Your task to perform on an android device: turn smart compose on in the gmail app Image 0: 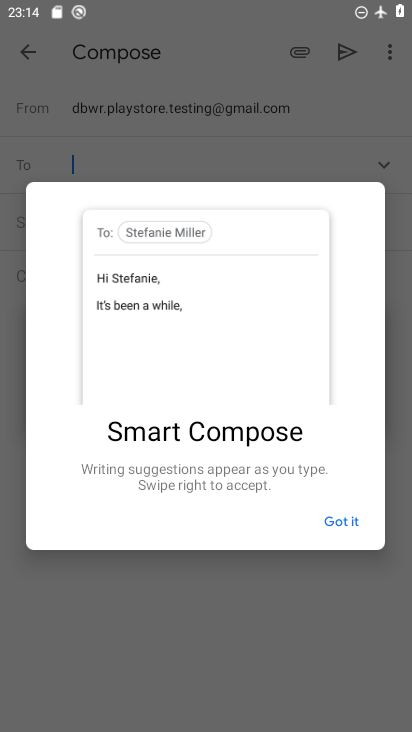
Step 0: press home button
Your task to perform on an android device: turn smart compose on in the gmail app Image 1: 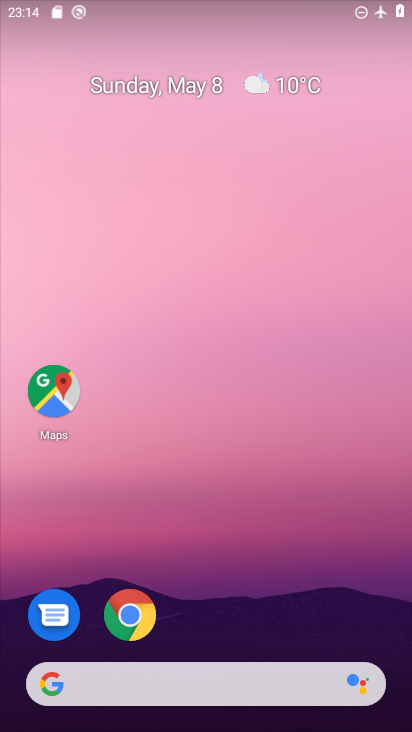
Step 1: drag from (280, 515) to (243, 134)
Your task to perform on an android device: turn smart compose on in the gmail app Image 2: 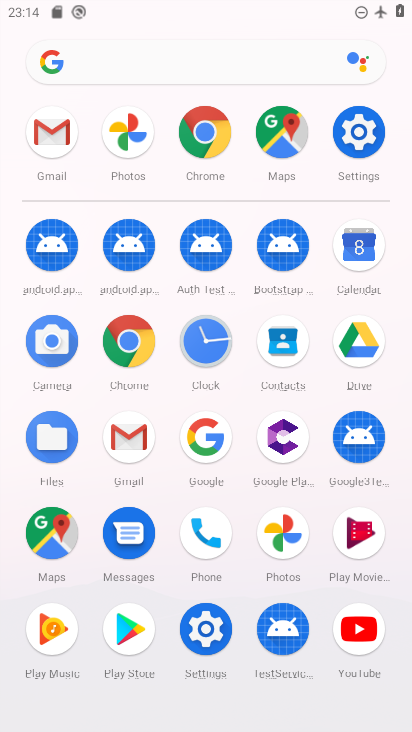
Step 2: click (56, 144)
Your task to perform on an android device: turn smart compose on in the gmail app Image 3: 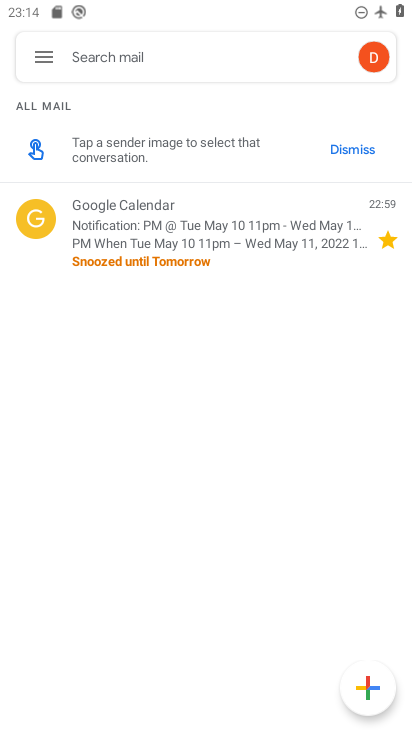
Step 3: click (45, 48)
Your task to perform on an android device: turn smart compose on in the gmail app Image 4: 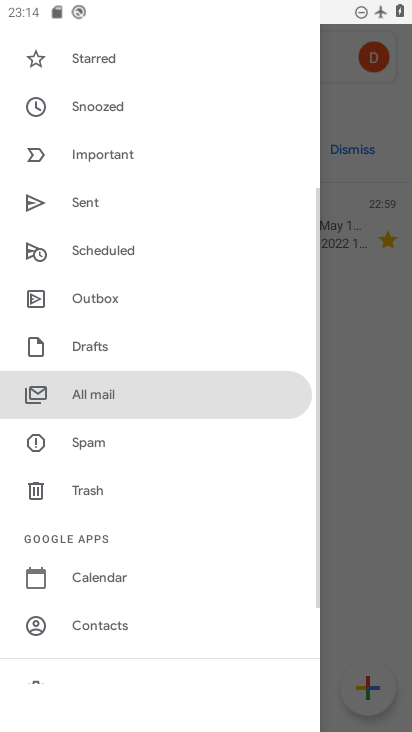
Step 4: drag from (124, 574) to (140, 128)
Your task to perform on an android device: turn smart compose on in the gmail app Image 5: 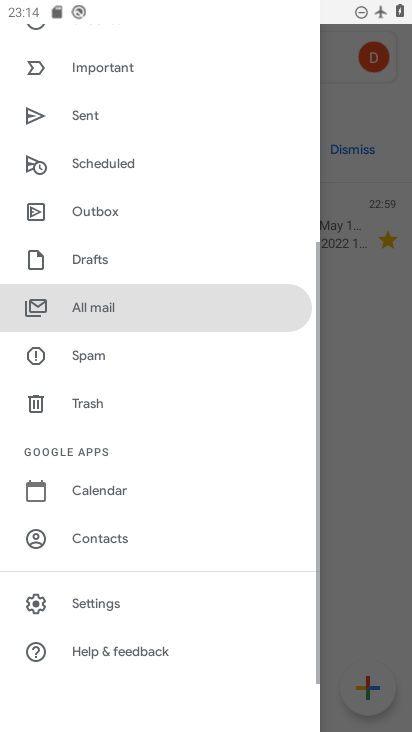
Step 5: click (89, 605)
Your task to perform on an android device: turn smart compose on in the gmail app Image 6: 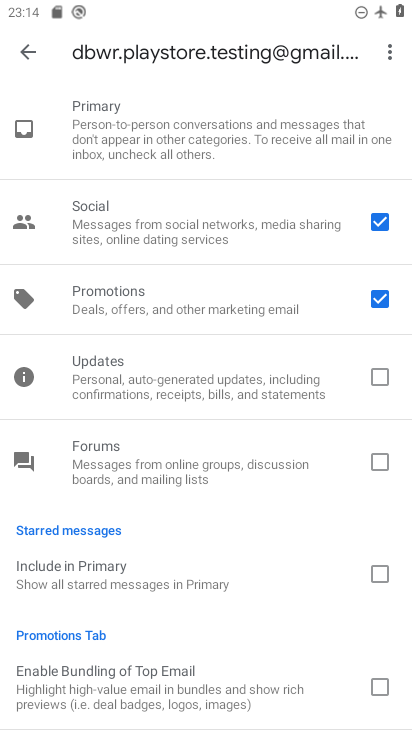
Step 6: drag from (238, 590) to (270, 33)
Your task to perform on an android device: turn smart compose on in the gmail app Image 7: 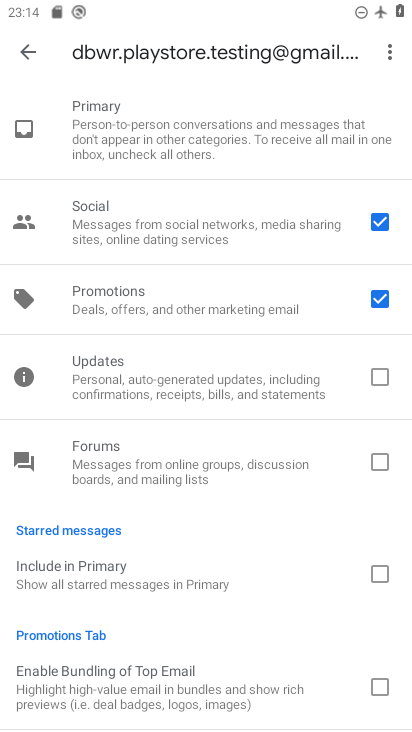
Step 7: drag from (242, 587) to (228, 52)
Your task to perform on an android device: turn smart compose on in the gmail app Image 8: 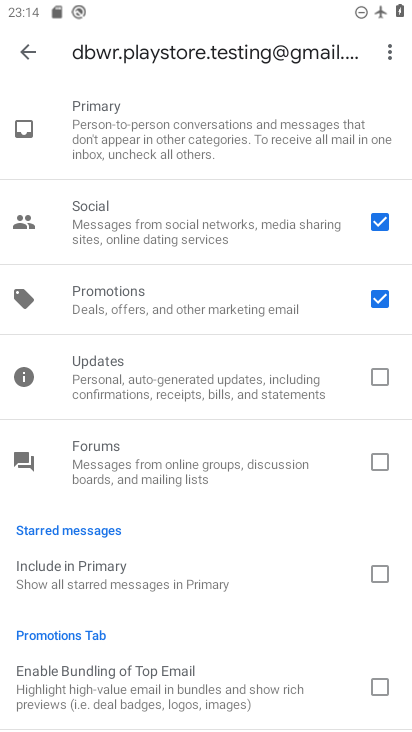
Step 8: drag from (162, 545) to (191, 67)
Your task to perform on an android device: turn smart compose on in the gmail app Image 9: 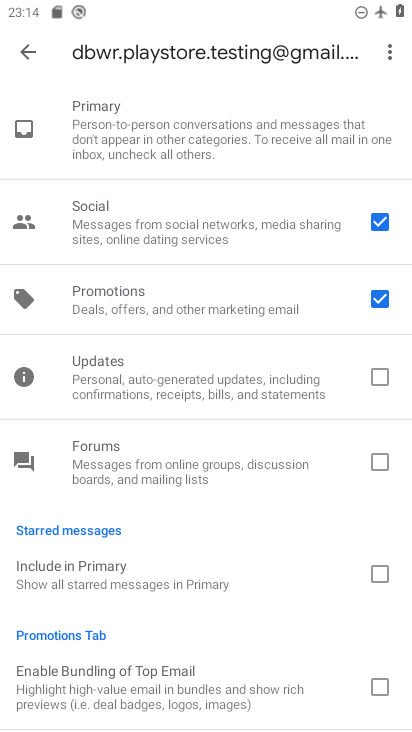
Step 9: click (30, 45)
Your task to perform on an android device: turn smart compose on in the gmail app Image 10: 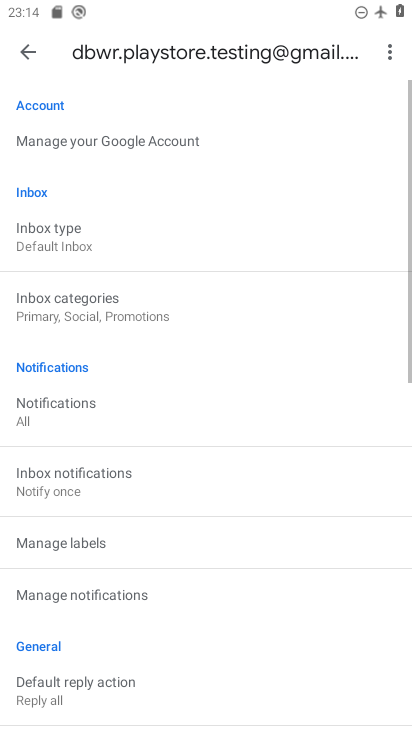
Step 10: task complete